Your task to perform on an android device: turn off wifi Image 0: 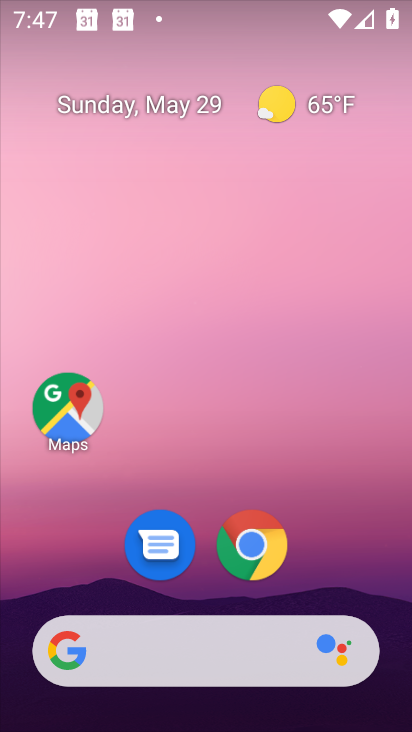
Step 0: drag from (199, 585) to (195, 210)
Your task to perform on an android device: turn off wifi Image 1: 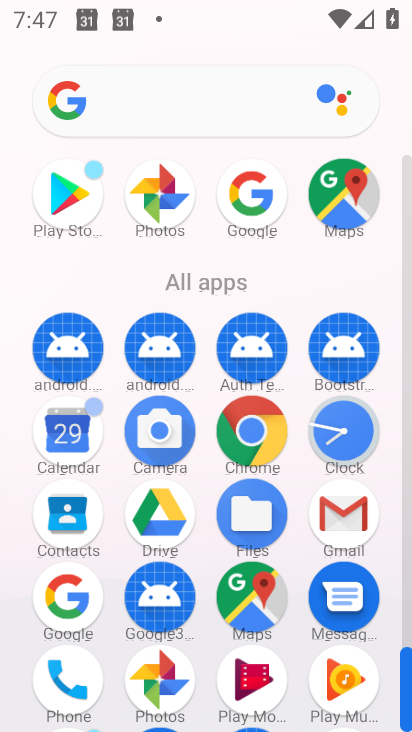
Step 1: drag from (105, 642) to (134, 324)
Your task to perform on an android device: turn off wifi Image 2: 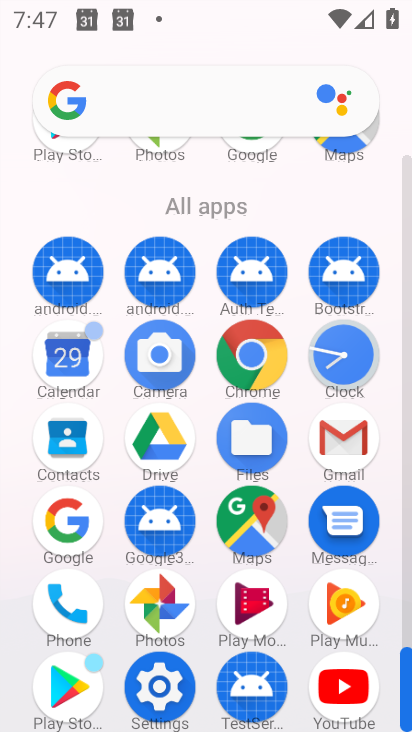
Step 2: click (164, 685)
Your task to perform on an android device: turn off wifi Image 3: 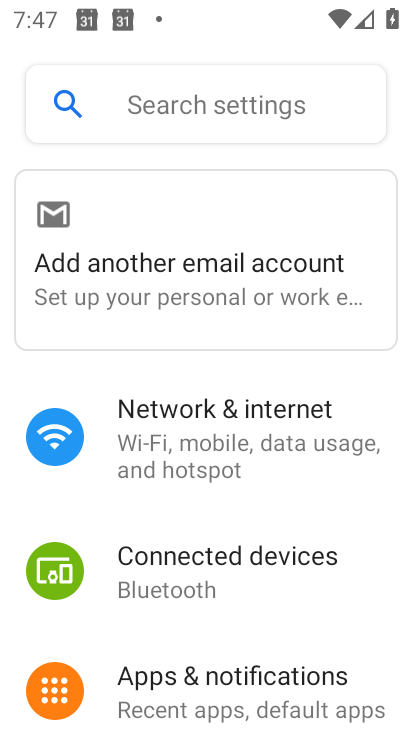
Step 3: drag from (198, 620) to (220, 374)
Your task to perform on an android device: turn off wifi Image 4: 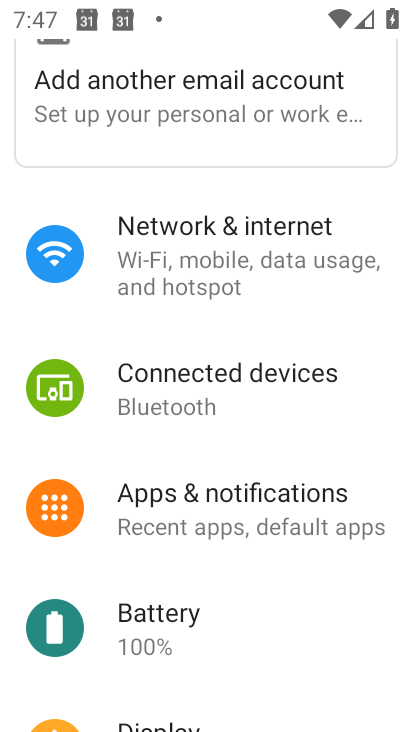
Step 4: click (217, 267)
Your task to perform on an android device: turn off wifi Image 5: 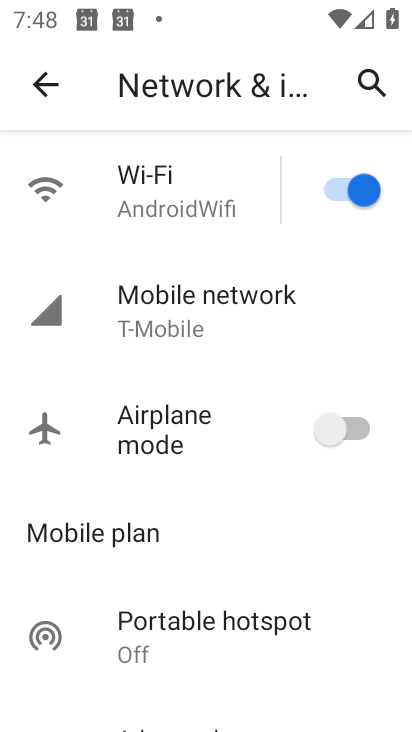
Step 5: click (356, 191)
Your task to perform on an android device: turn off wifi Image 6: 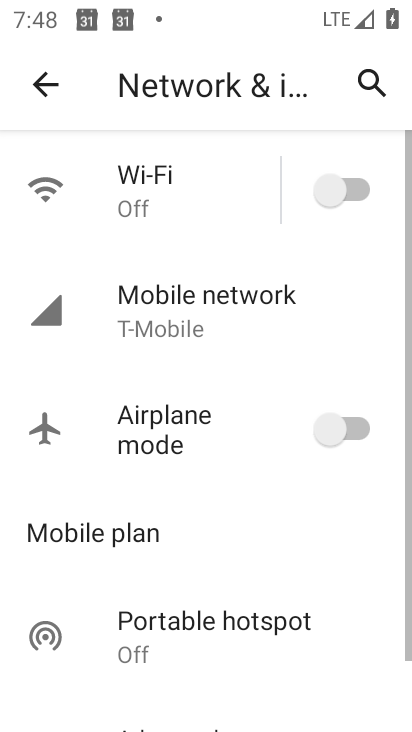
Step 6: task complete